Your task to perform on an android device: Open Yahoo.com Image 0: 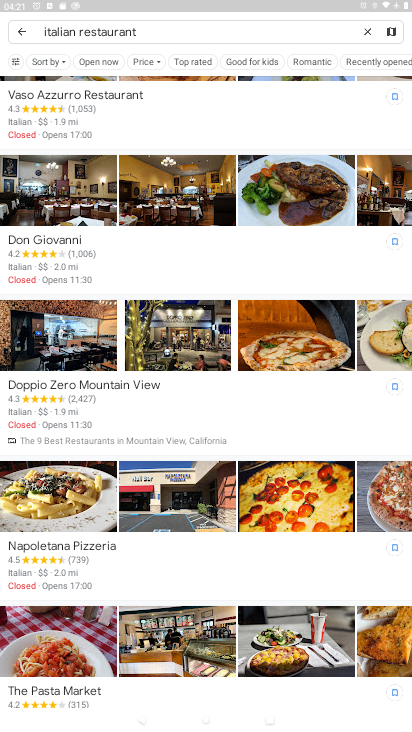
Step 0: press home button
Your task to perform on an android device: Open Yahoo.com Image 1: 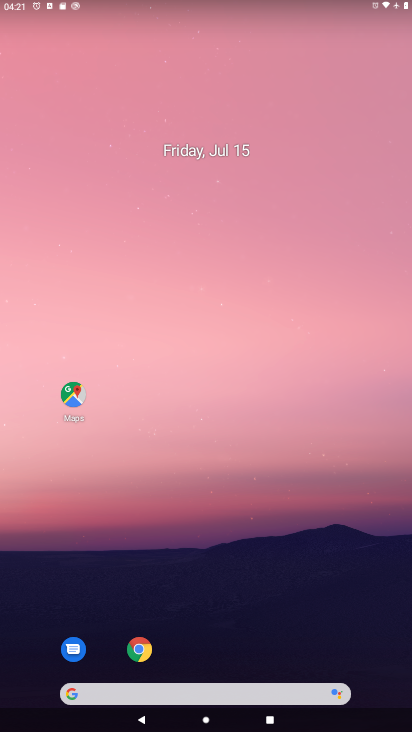
Step 1: click (136, 650)
Your task to perform on an android device: Open Yahoo.com Image 2: 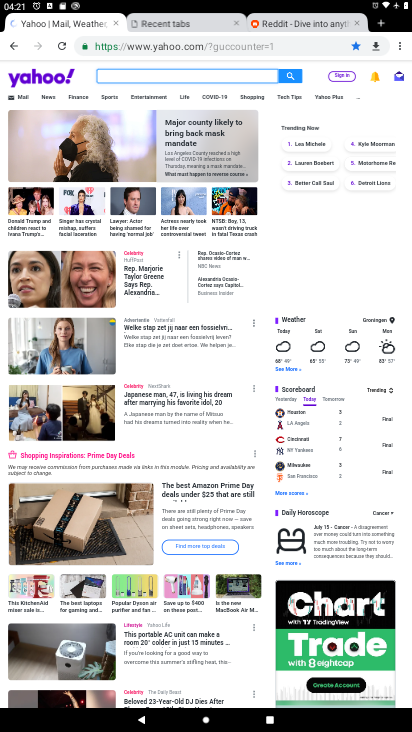
Step 2: task complete